Your task to perform on an android device: Is it going to rain today? Image 0: 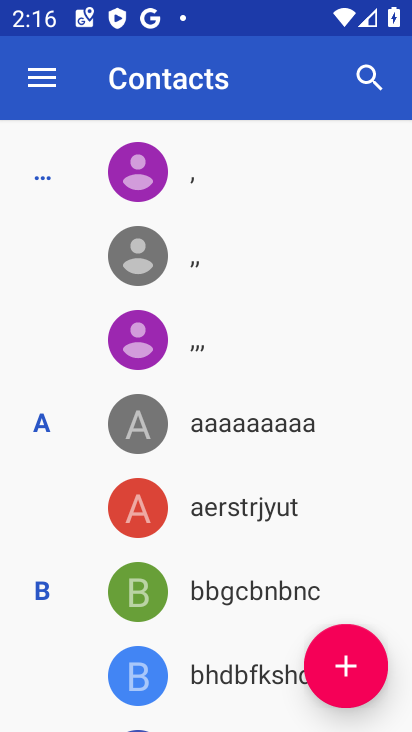
Step 0: press back button
Your task to perform on an android device: Is it going to rain today? Image 1: 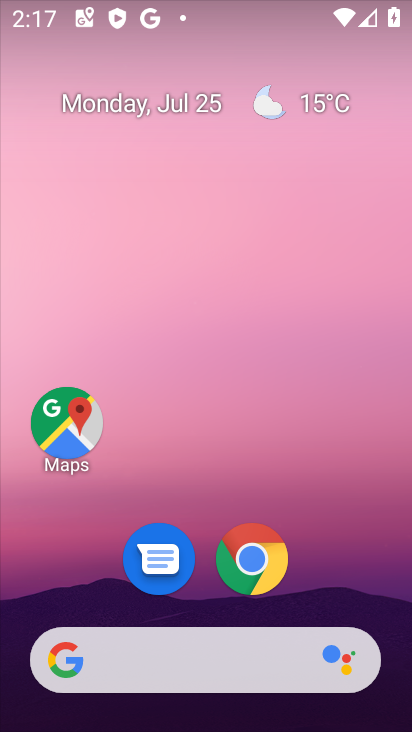
Step 1: click (162, 657)
Your task to perform on an android device: Is it going to rain today? Image 2: 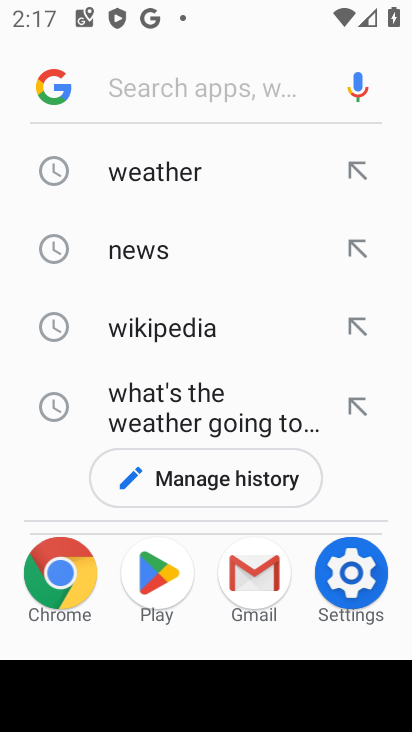
Step 2: click (164, 174)
Your task to perform on an android device: Is it going to rain today? Image 3: 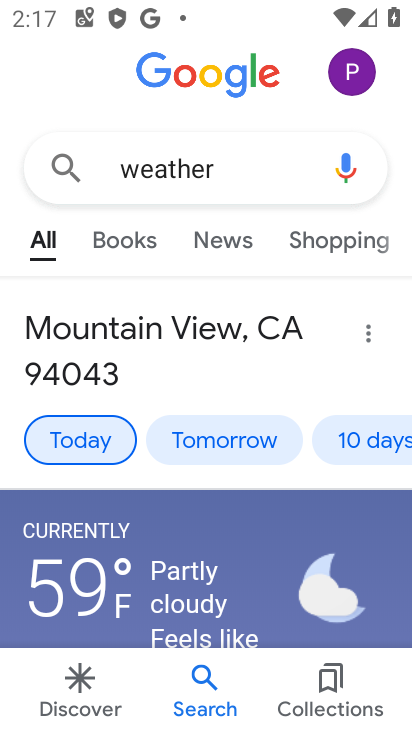
Step 3: task complete